Your task to perform on an android device: When is my next meeting? Image 0: 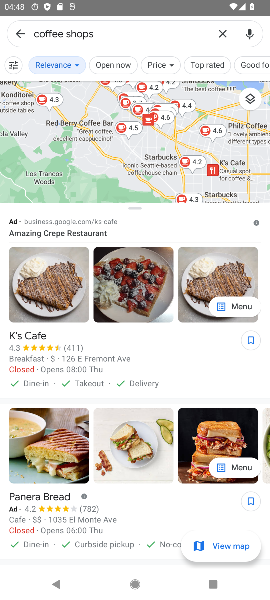
Step 0: press home button
Your task to perform on an android device: When is my next meeting? Image 1: 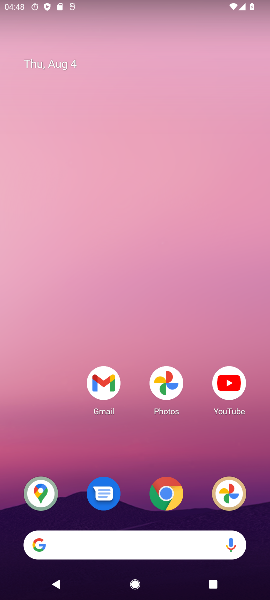
Step 1: drag from (7, 574) to (164, 205)
Your task to perform on an android device: When is my next meeting? Image 2: 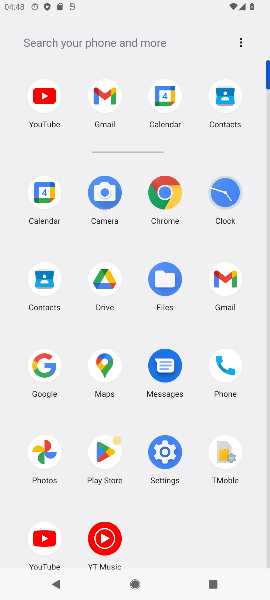
Step 2: click (40, 208)
Your task to perform on an android device: When is my next meeting? Image 3: 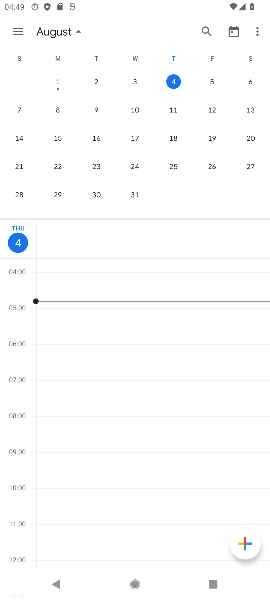
Step 3: task complete